Your task to perform on an android device: snooze an email in the gmail app Image 0: 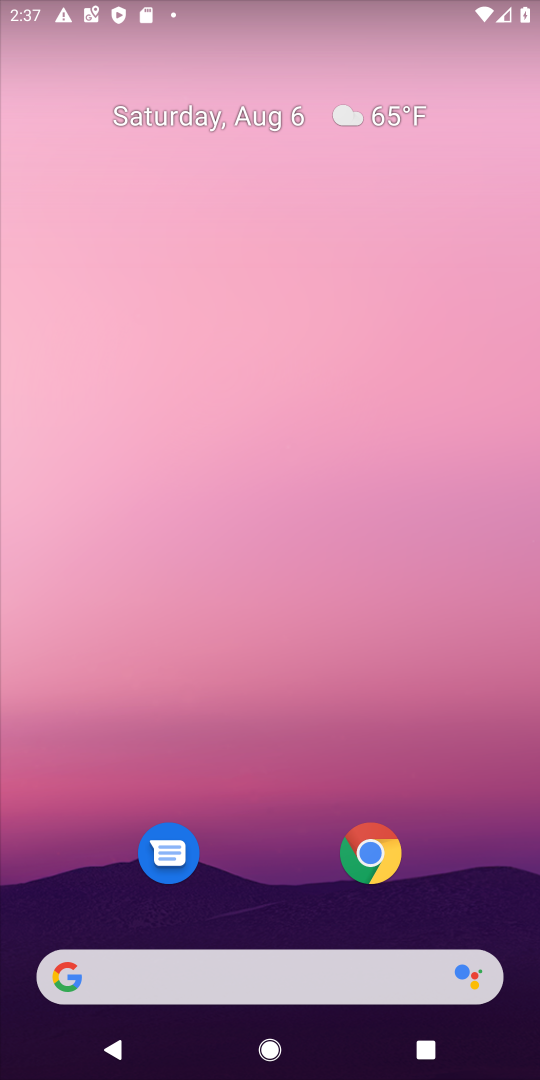
Step 0: drag from (221, 936) to (249, 226)
Your task to perform on an android device: snooze an email in the gmail app Image 1: 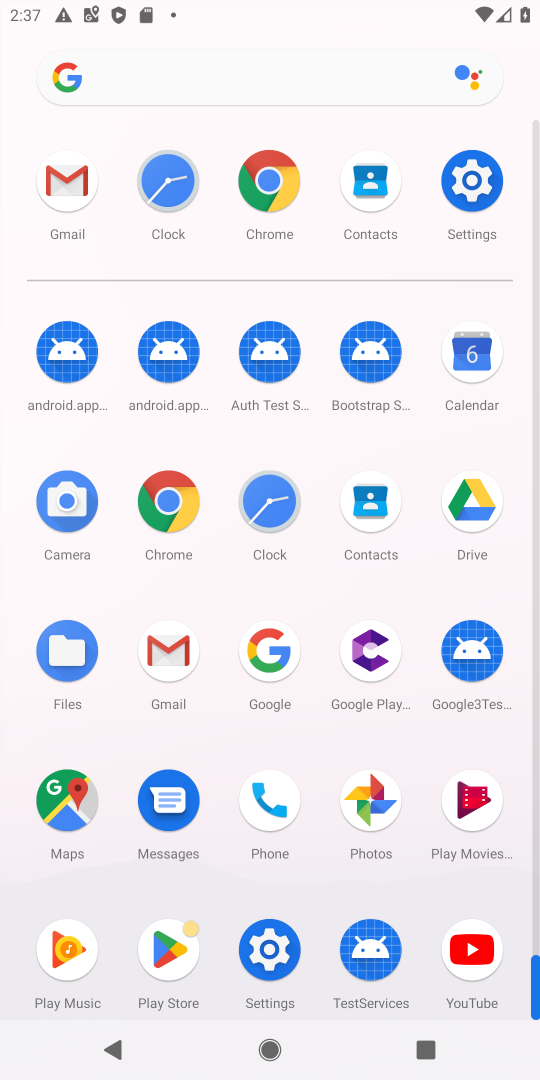
Step 1: click (59, 172)
Your task to perform on an android device: snooze an email in the gmail app Image 2: 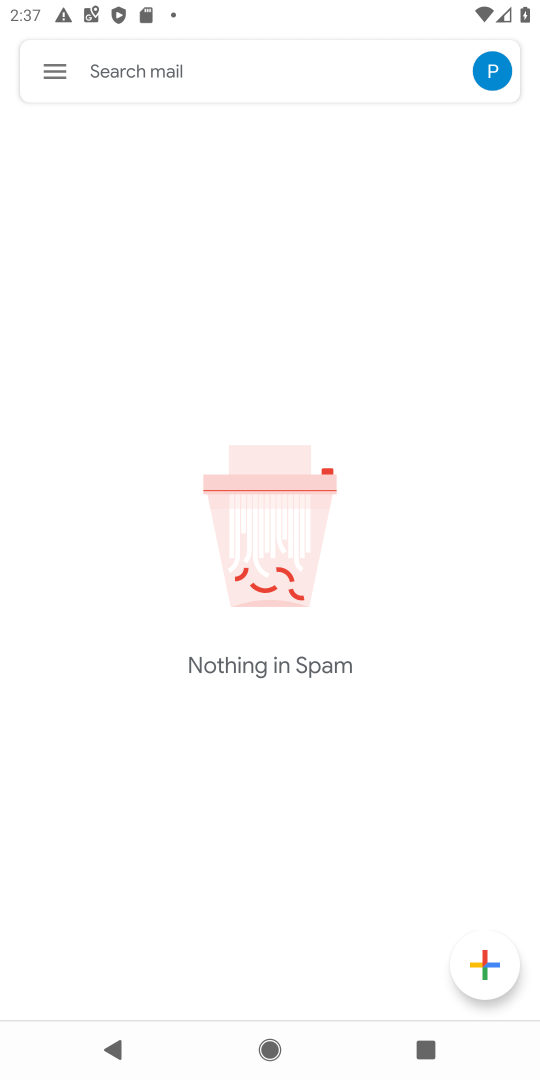
Step 2: click (56, 61)
Your task to perform on an android device: snooze an email in the gmail app Image 3: 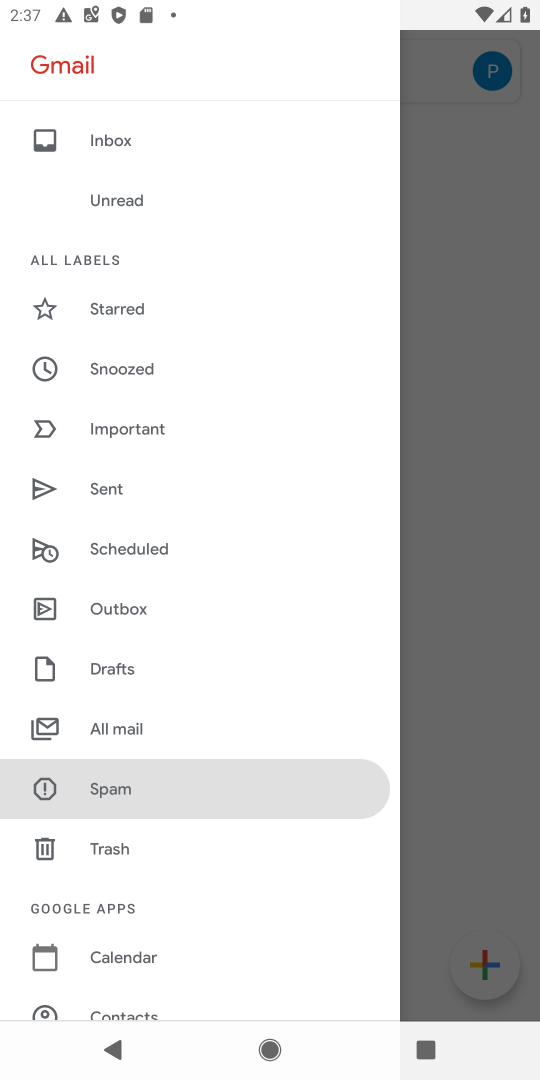
Step 3: click (98, 726)
Your task to perform on an android device: snooze an email in the gmail app Image 4: 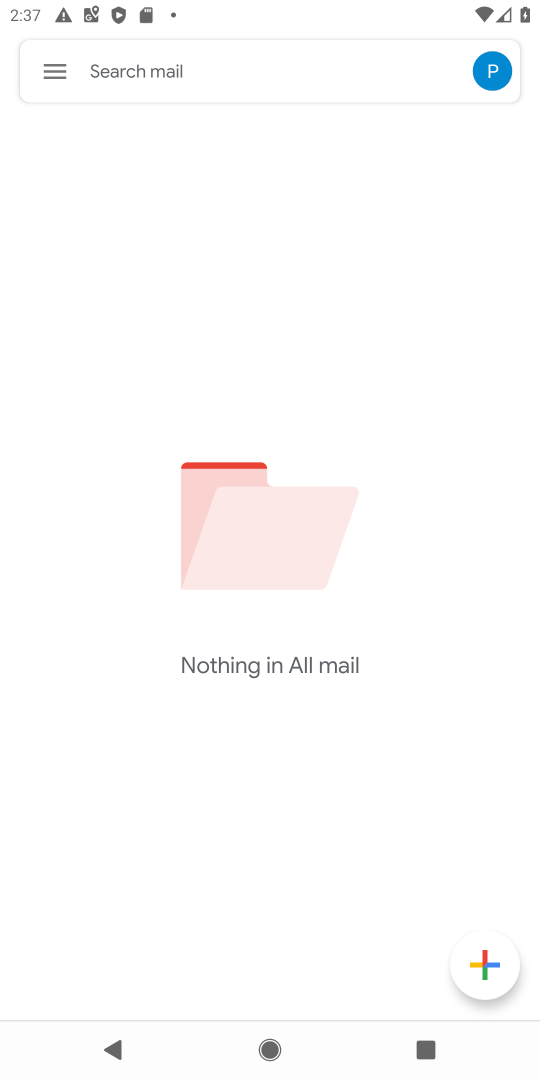
Step 4: task complete